Your task to perform on an android device: open app "Messages" (install if not already installed) and enter user name: "Hersey@inbox.com" and password: "facings" Image 0: 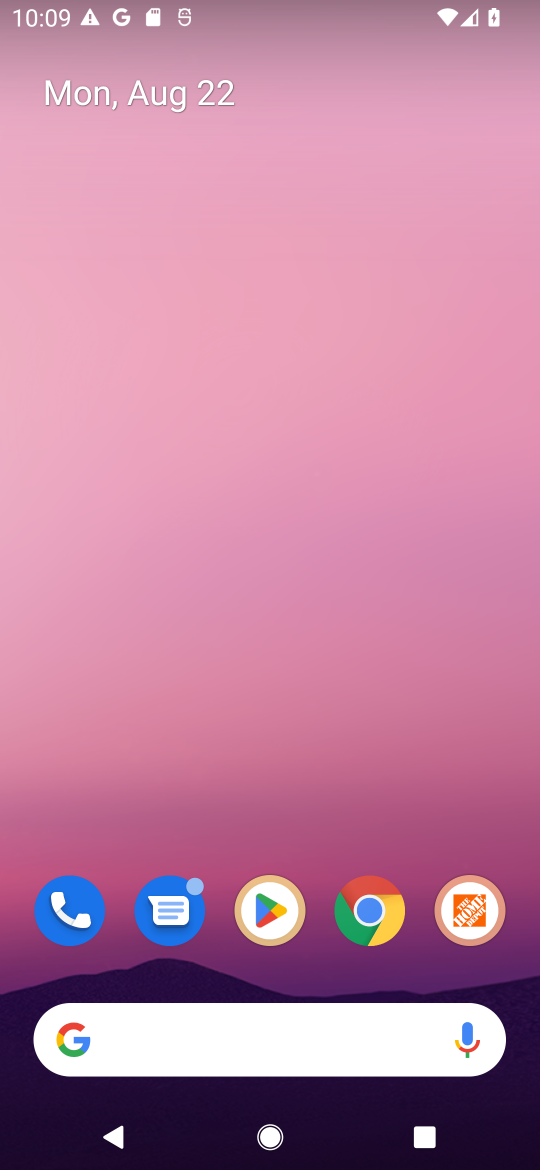
Step 0: click (247, 902)
Your task to perform on an android device: open app "Messages" (install if not already installed) and enter user name: "Hersey@inbox.com" and password: "facings" Image 1: 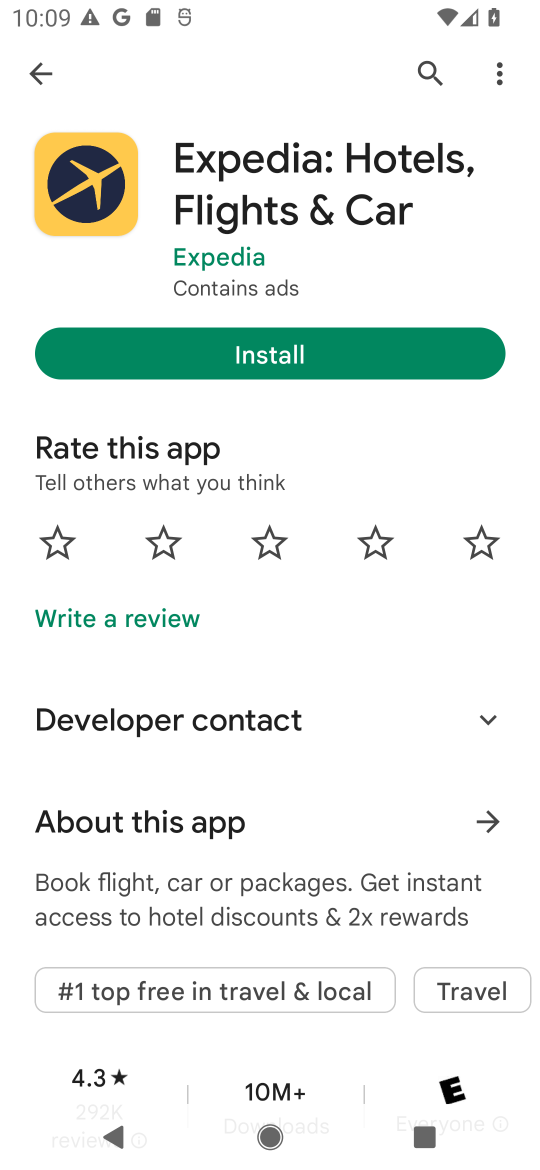
Step 1: click (429, 75)
Your task to perform on an android device: open app "Messages" (install if not already installed) and enter user name: "Hersey@inbox.com" and password: "facings" Image 2: 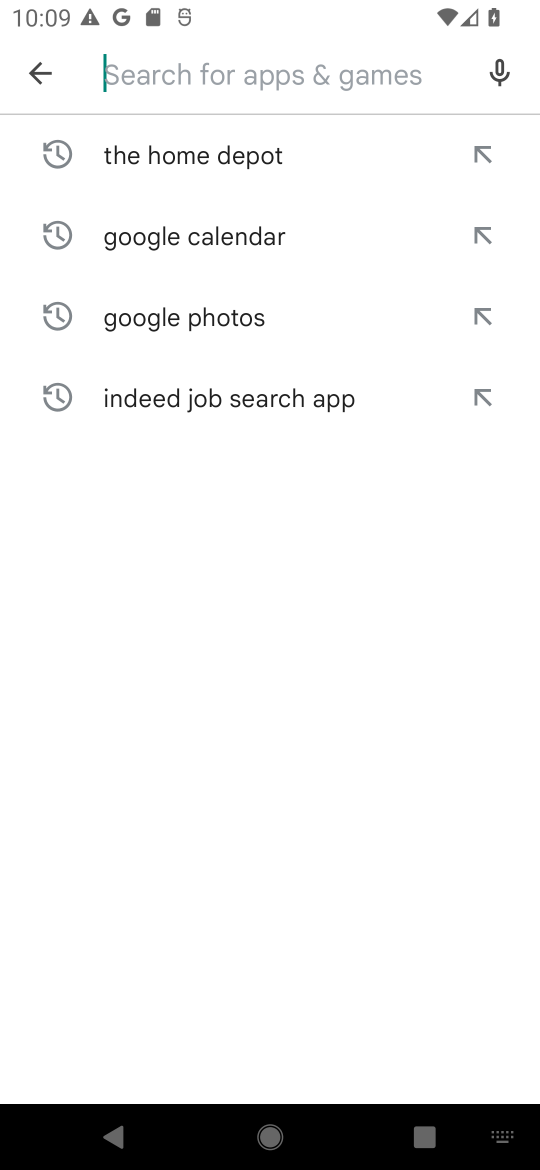
Step 2: type "Messages"
Your task to perform on an android device: open app "Messages" (install if not already installed) and enter user name: "Hersey@inbox.com" and password: "facings" Image 3: 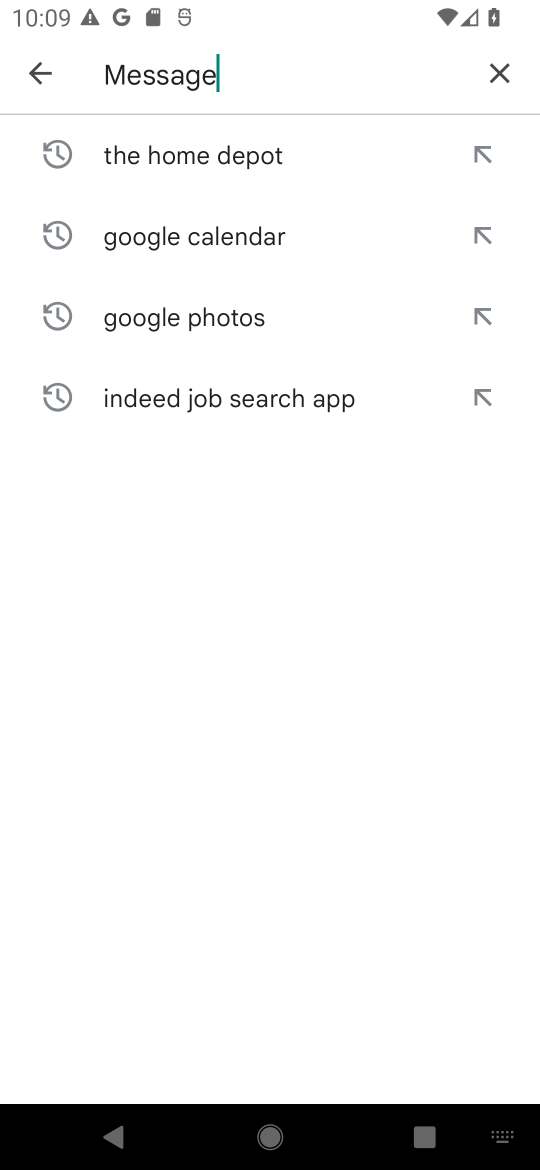
Step 3: type ""
Your task to perform on an android device: open app "Messages" (install if not already installed) and enter user name: "Hersey@inbox.com" and password: "facings" Image 4: 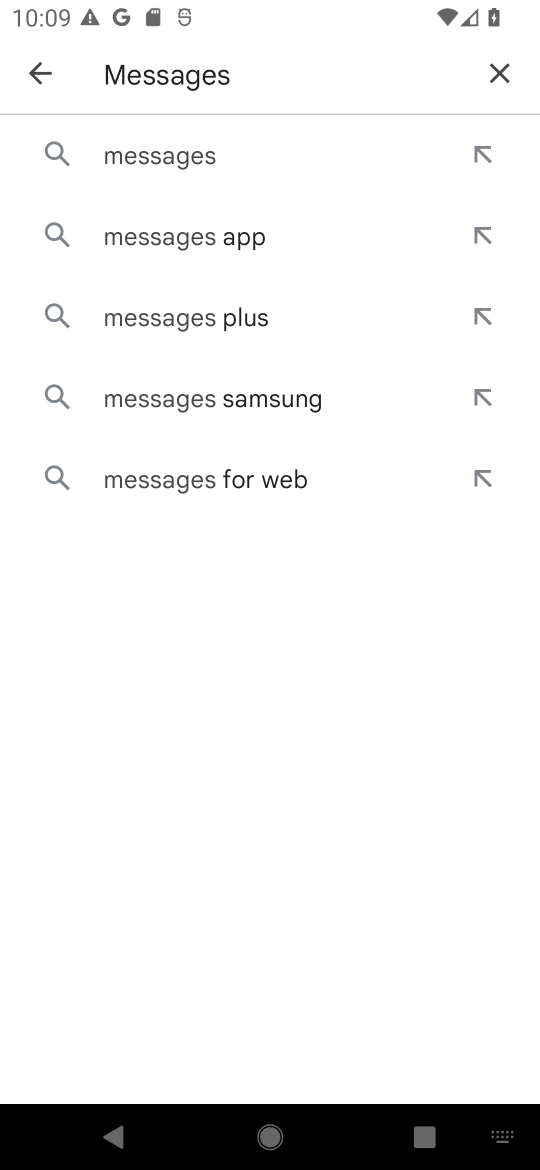
Step 4: click (207, 164)
Your task to perform on an android device: open app "Messages" (install if not already installed) and enter user name: "Hersey@inbox.com" and password: "facings" Image 5: 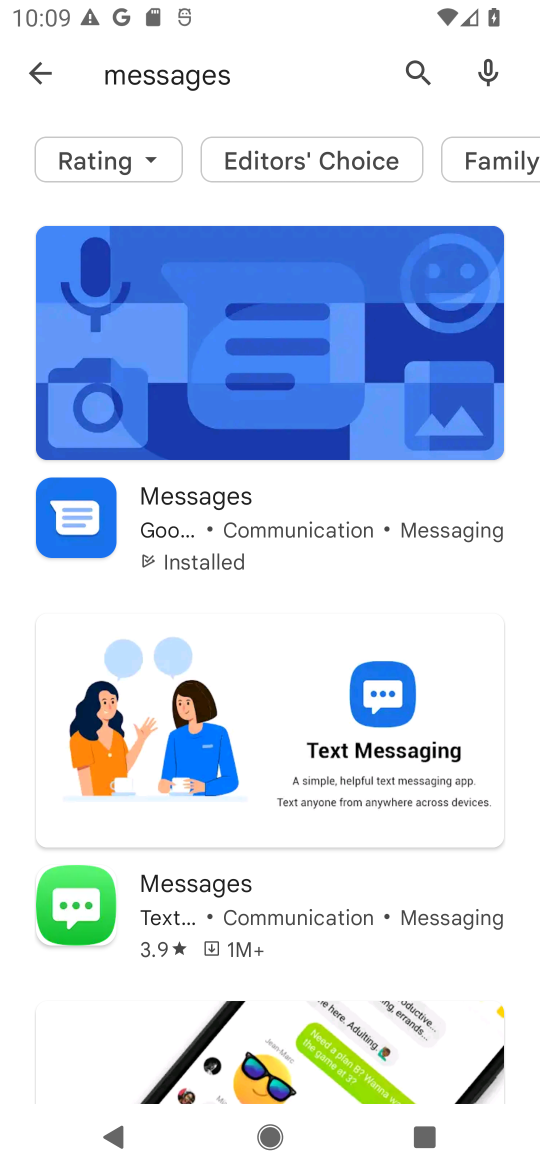
Step 5: press home button
Your task to perform on an android device: open app "Messages" (install if not already installed) and enter user name: "Hersey@inbox.com" and password: "facings" Image 6: 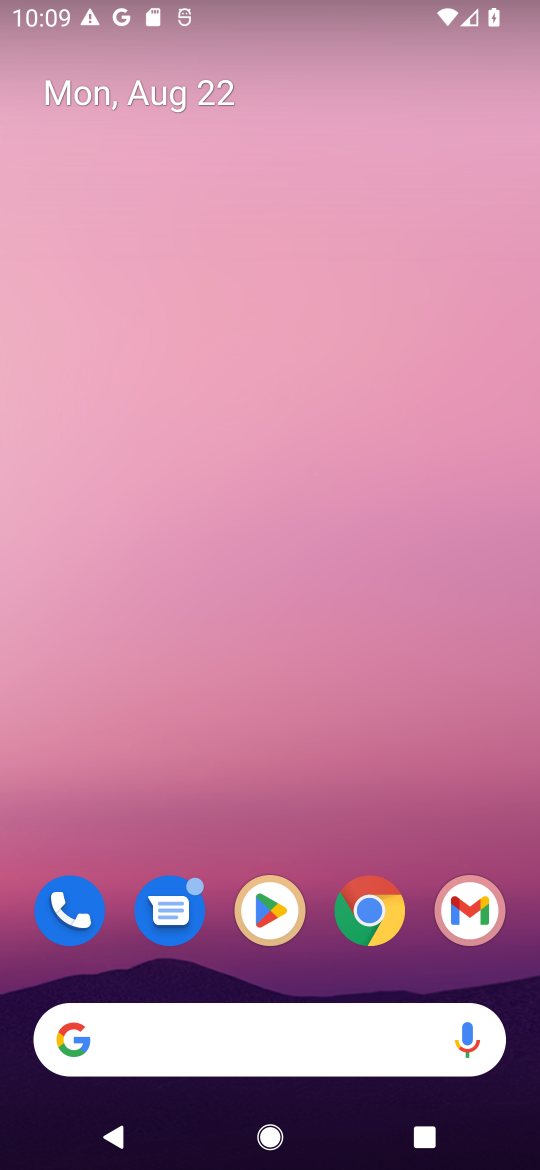
Step 6: click (285, 897)
Your task to perform on an android device: open app "Messages" (install if not already installed) and enter user name: "Hersey@inbox.com" and password: "facings" Image 7: 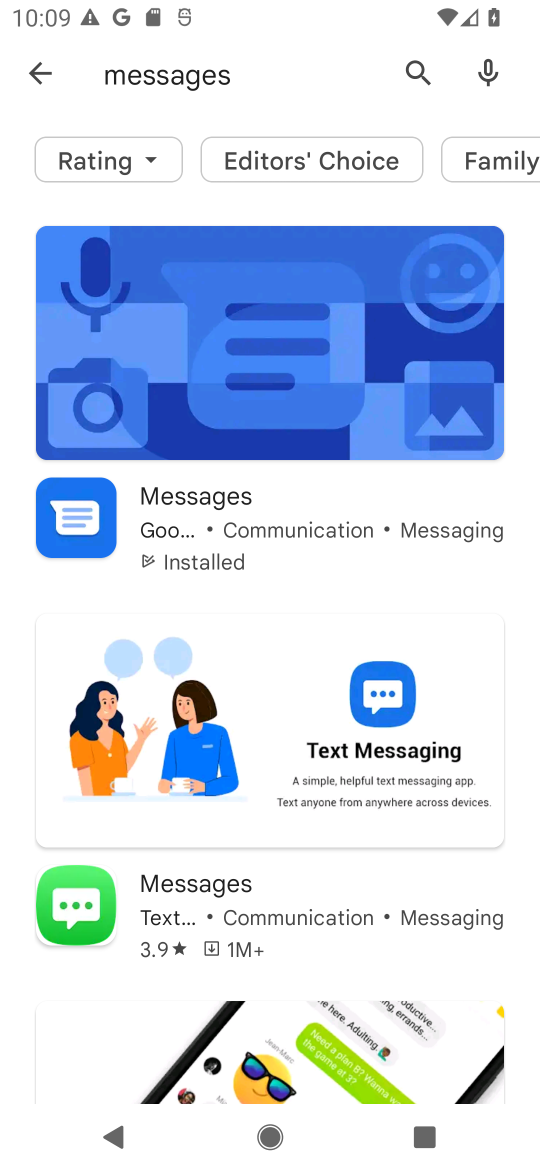
Step 7: click (427, 75)
Your task to perform on an android device: open app "Messages" (install if not already installed) and enter user name: "Hersey@inbox.com" and password: "facings" Image 8: 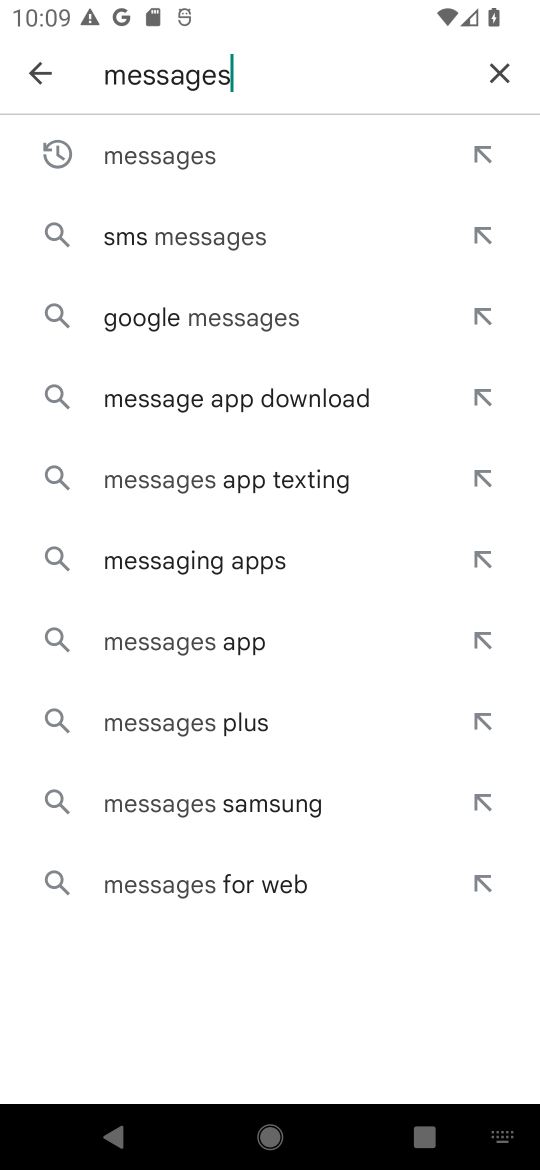
Step 8: click (222, 149)
Your task to perform on an android device: open app "Messages" (install if not already installed) and enter user name: "Hersey@inbox.com" and password: "facings" Image 9: 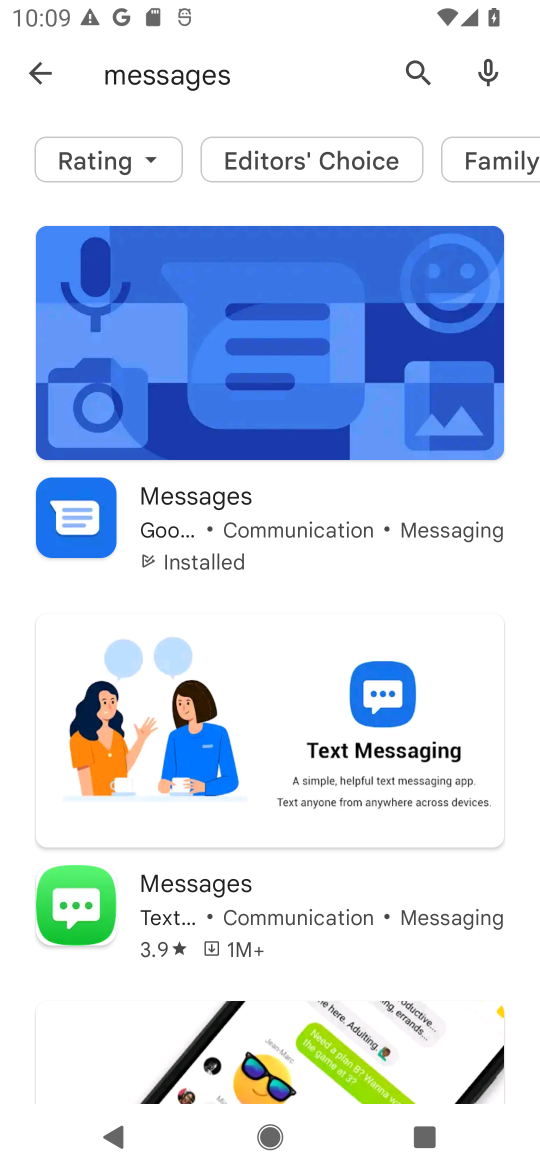
Step 9: click (237, 529)
Your task to perform on an android device: open app "Messages" (install if not already installed) and enter user name: "Hersey@inbox.com" and password: "facings" Image 10: 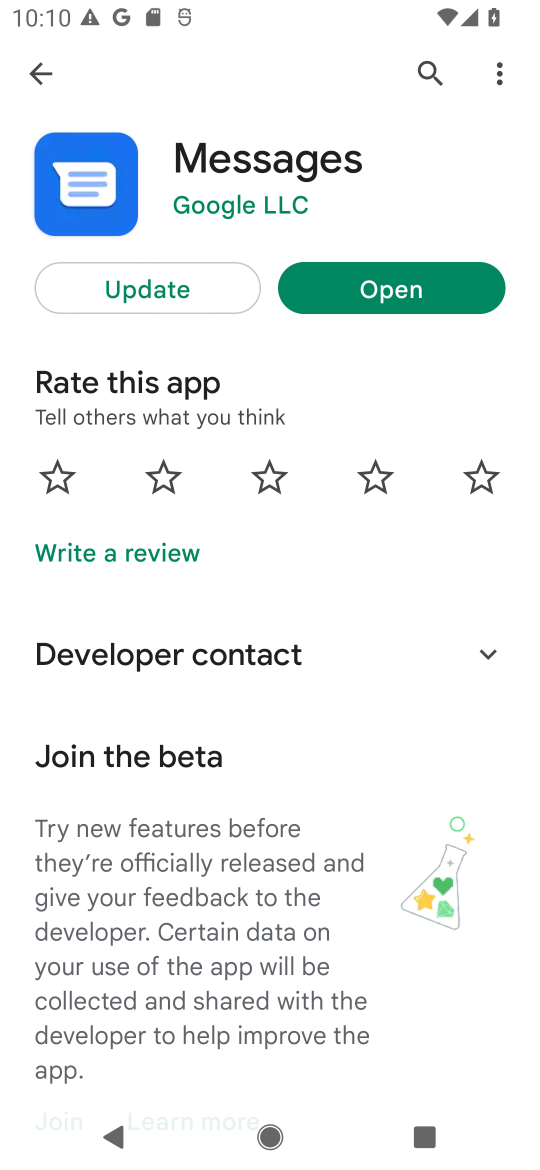
Step 10: click (372, 290)
Your task to perform on an android device: open app "Messages" (install if not already installed) and enter user name: "Hersey@inbox.com" and password: "facings" Image 11: 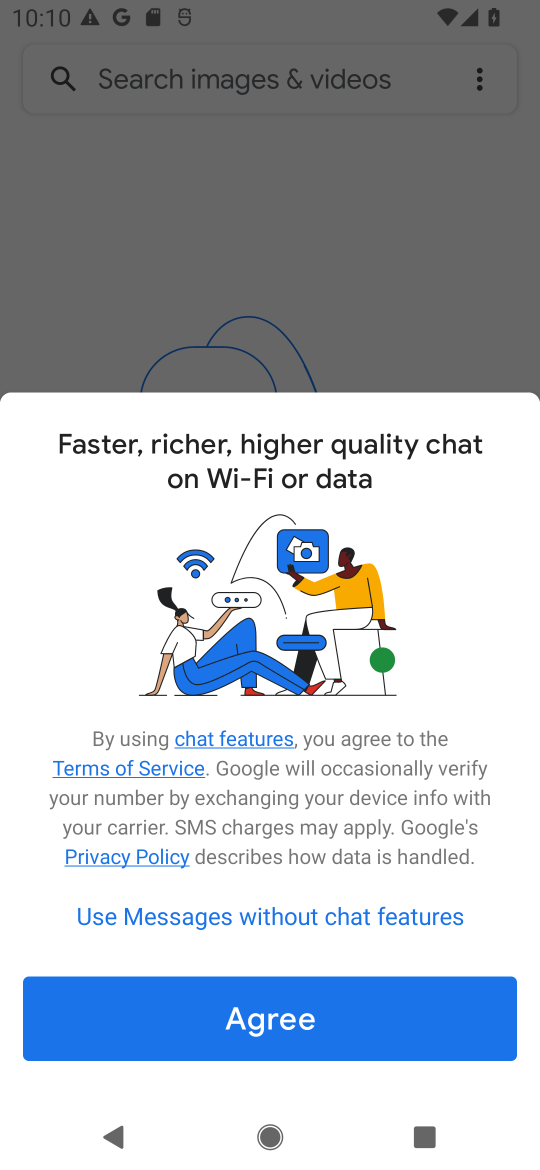
Step 11: task complete